Your task to perform on an android device: Go to wifi settings Image 0: 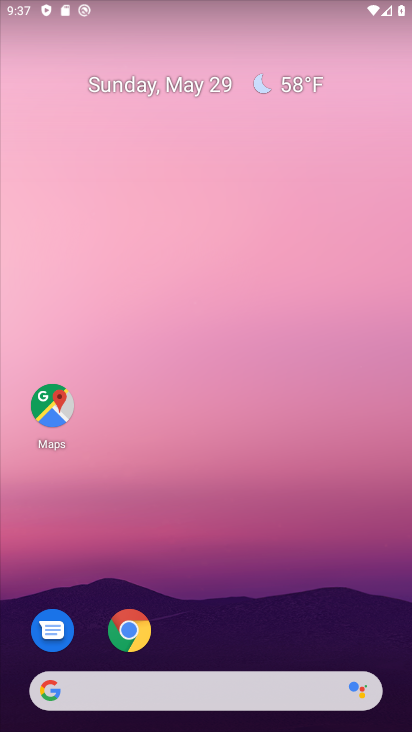
Step 0: drag from (207, 674) to (301, 232)
Your task to perform on an android device: Go to wifi settings Image 1: 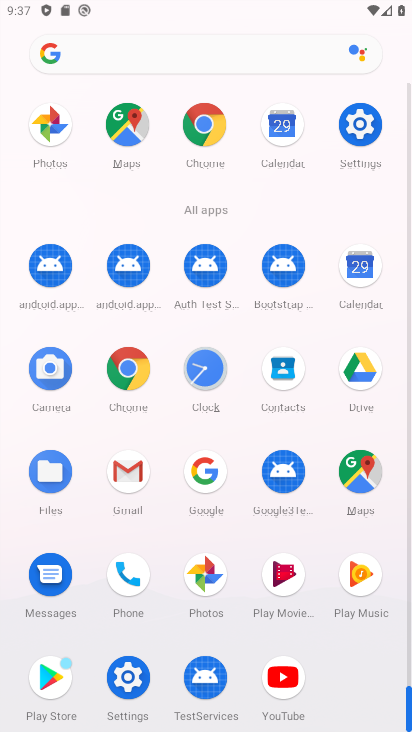
Step 1: click (141, 680)
Your task to perform on an android device: Go to wifi settings Image 2: 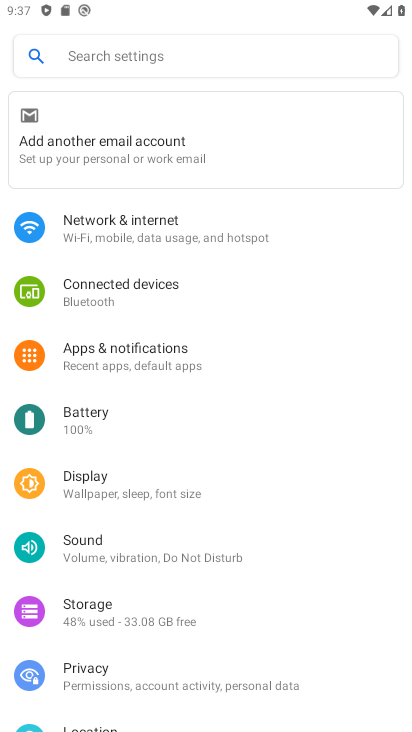
Step 2: click (236, 230)
Your task to perform on an android device: Go to wifi settings Image 3: 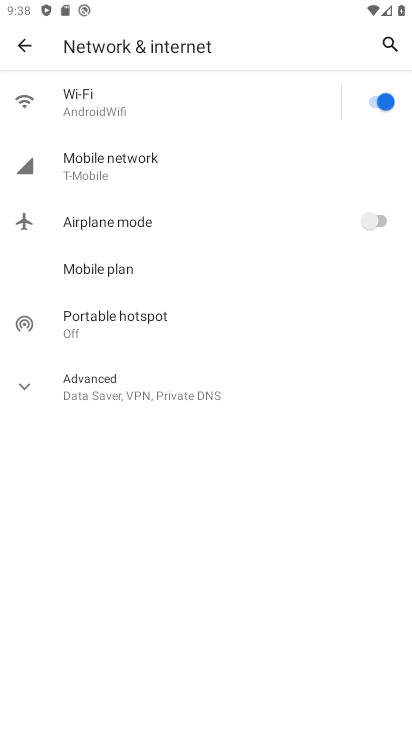
Step 3: click (129, 99)
Your task to perform on an android device: Go to wifi settings Image 4: 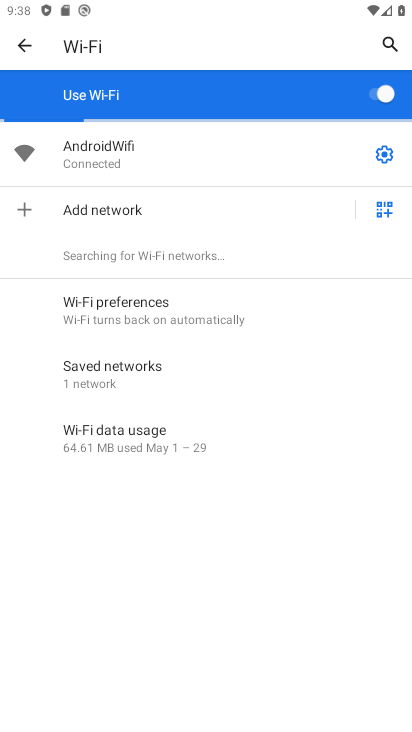
Step 4: task complete